Your task to perform on an android device: Go to Reddit.com Image 0: 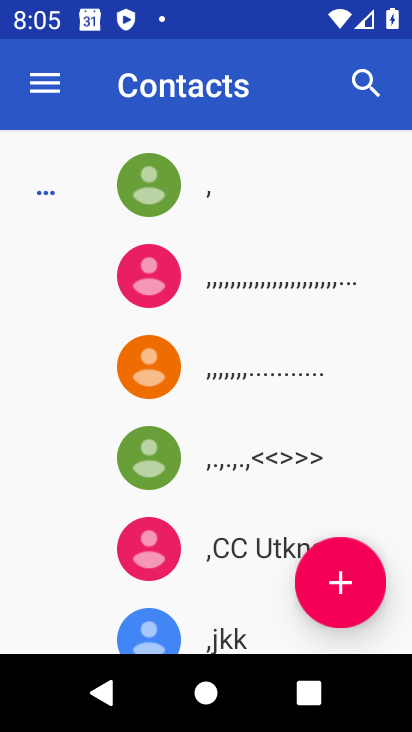
Step 0: press home button
Your task to perform on an android device: Go to Reddit.com Image 1: 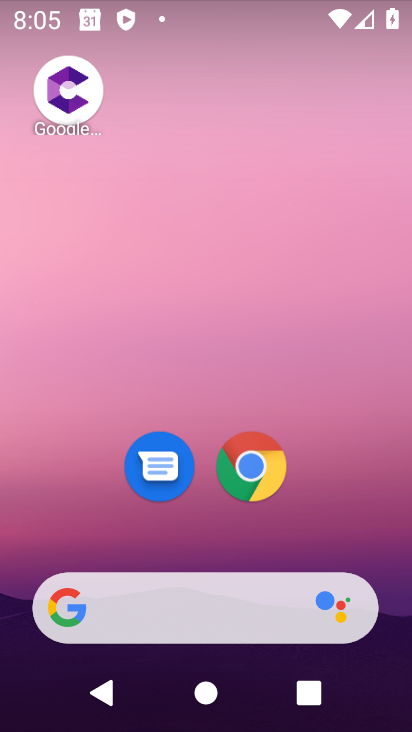
Step 1: click (245, 469)
Your task to perform on an android device: Go to Reddit.com Image 2: 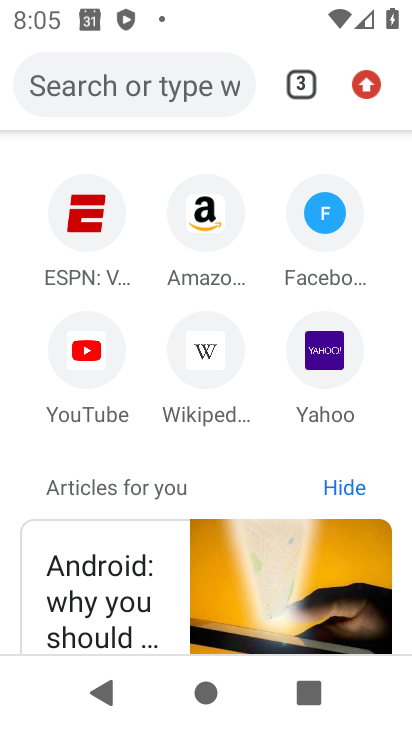
Step 2: click (141, 86)
Your task to perform on an android device: Go to Reddit.com Image 3: 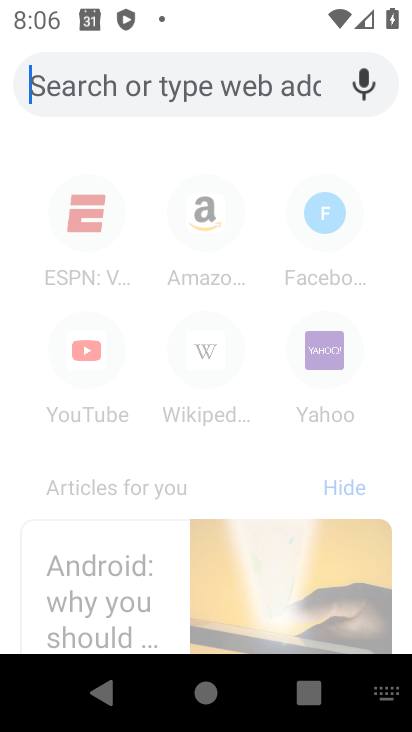
Step 3: type "reddit.com"
Your task to perform on an android device: Go to Reddit.com Image 4: 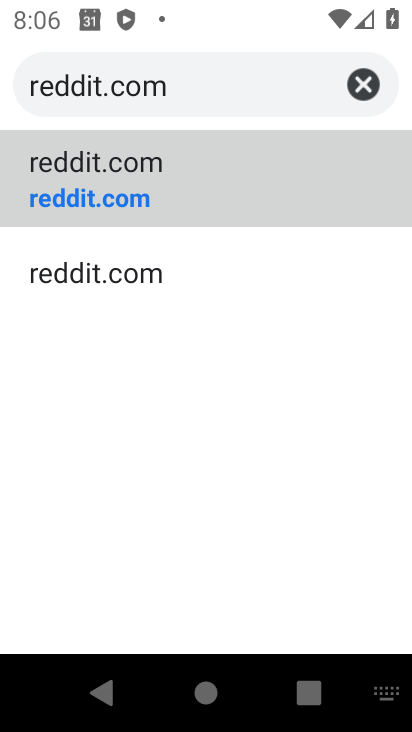
Step 4: click (157, 187)
Your task to perform on an android device: Go to Reddit.com Image 5: 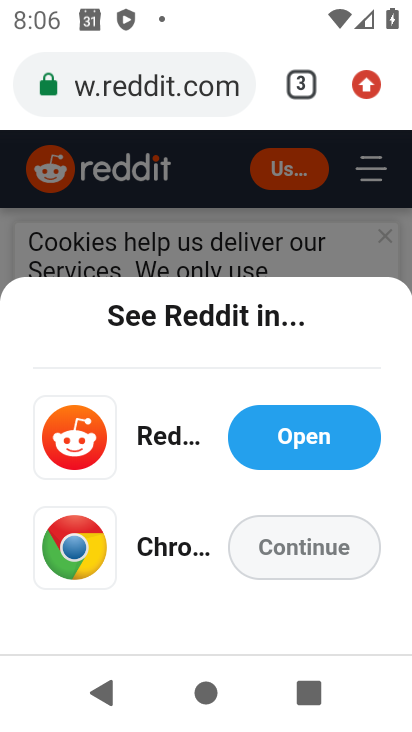
Step 5: task complete